Your task to perform on an android device: turn on translation in the chrome app Image 0: 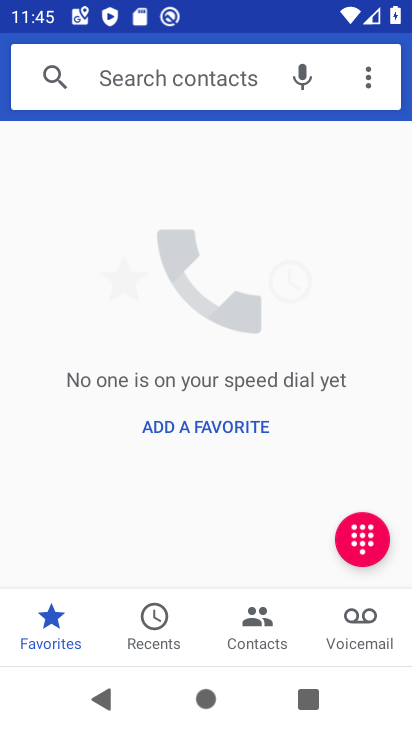
Step 0: press home button
Your task to perform on an android device: turn on translation in the chrome app Image 1: 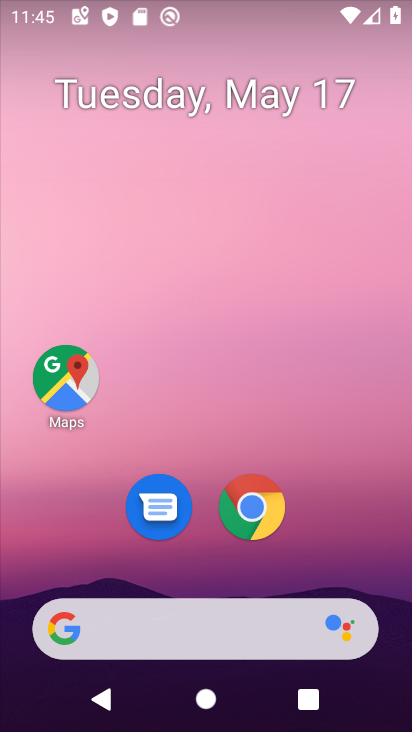
Step 1: drag from (361, 526) to (346, 183)
Your task to perform on an android device: turn on translation in the chrome app Image 2: 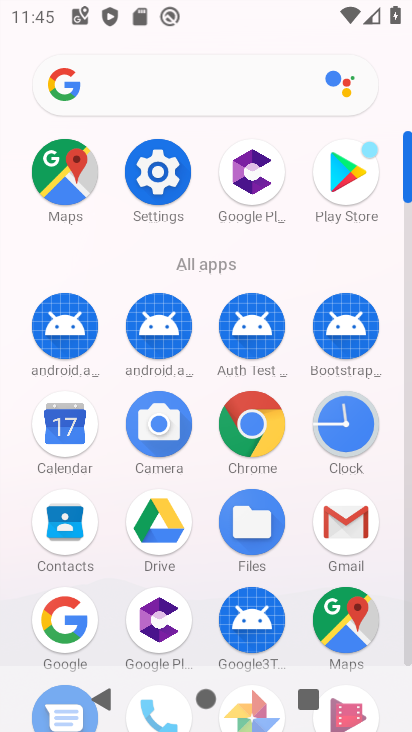
Step 2: click (253, 426)
Your task to perform on an android device: turn on translation in the chrome app Image 3: 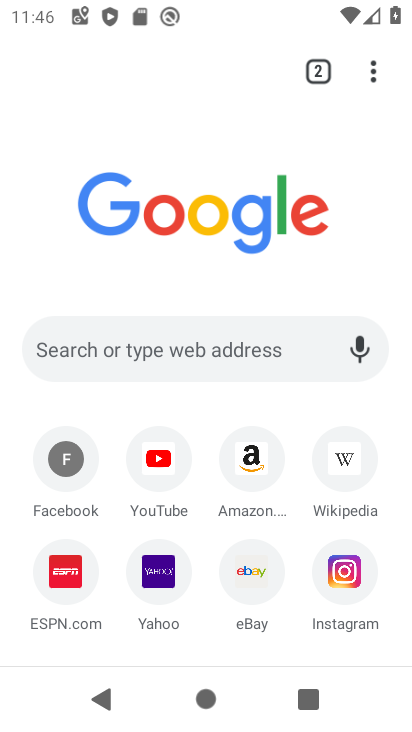
Step 3: click (369, 61)
Your task to perform on an android device: turn on translation in the chrome app Image 4: 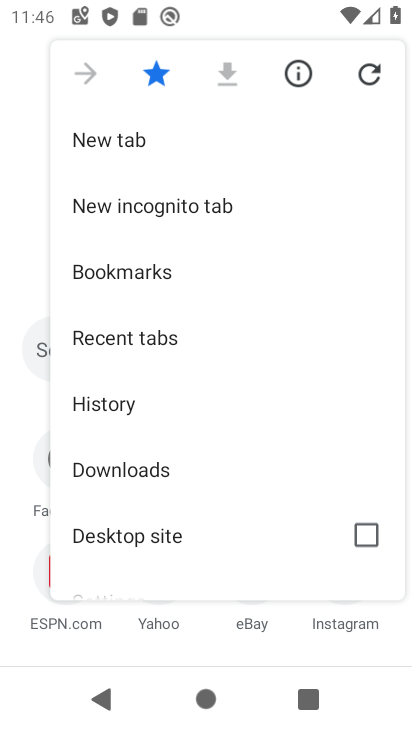
Step 4: drag from (250, 473) to (263, 194)
Your task to perform on an android device: turn on translation in the chrome app Image 5: 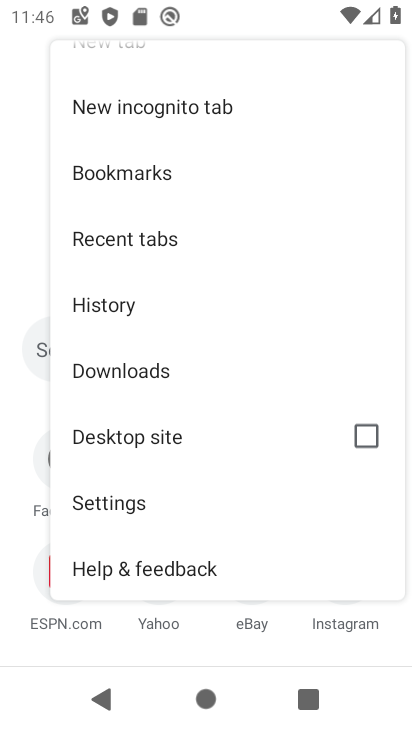
Step 5: click (156, 512)
Your task to perform on an android device: turn on translation in the chrome app Image 6: 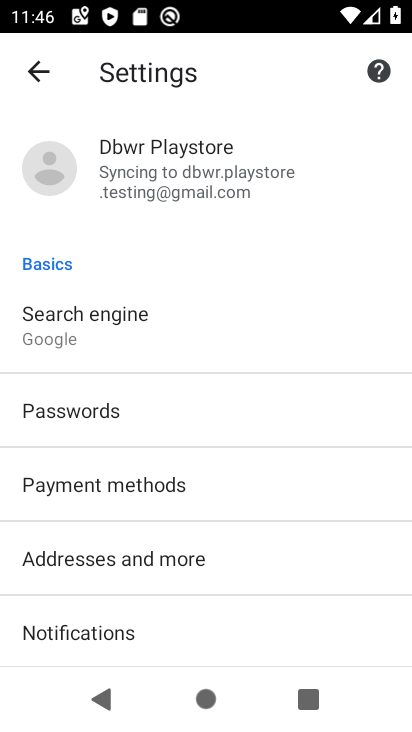
Step 6: drag from (218, 610) to (267, 275)
Your task to perform on an android device: turn on translation in the chrome app Image 7: 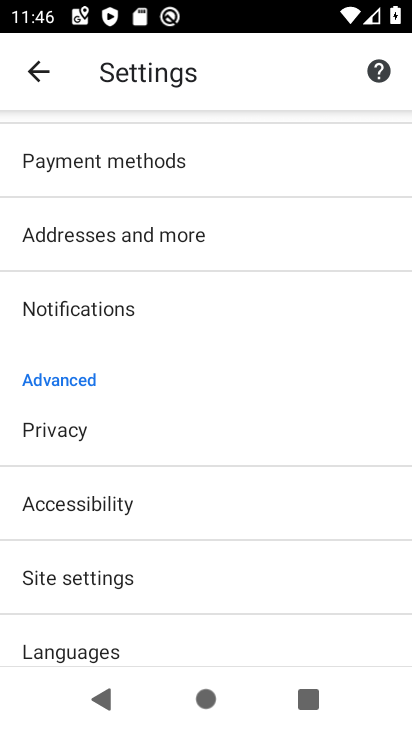
Step 7: drag from (174, 579) to (225, 349)
Your task to perform on an android device: turn on translation in the chrome app Image 8: 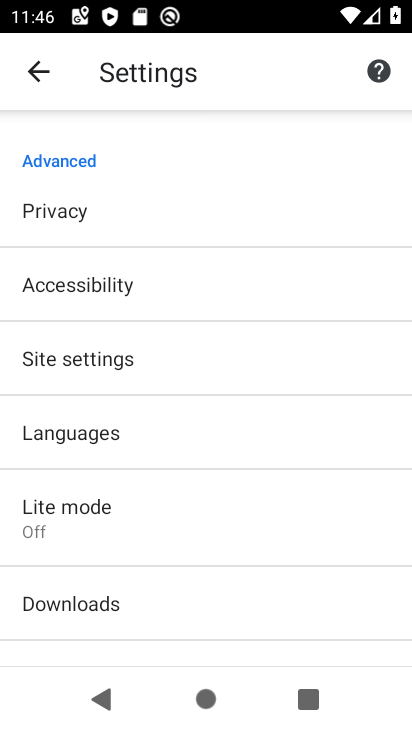
Step 8: click (159, 357)
Your task to perform on an android device: turn on translation in the chrome app Image 9: 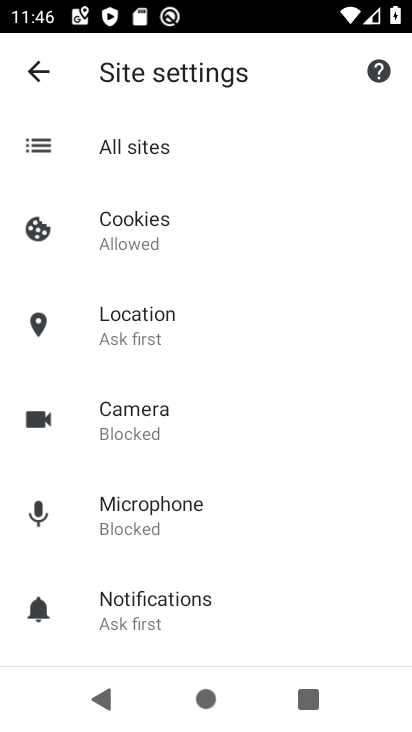
Step 9: press back button
Your task to perform on an android device: turn on translation in the chrome app Image 10: 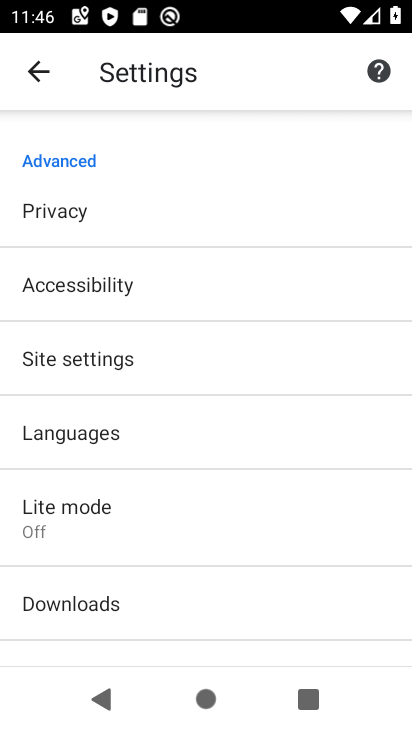
Step 10: click (222, 438)
Your task to perform on an android device: turn on translation in the chrome app Image 11: 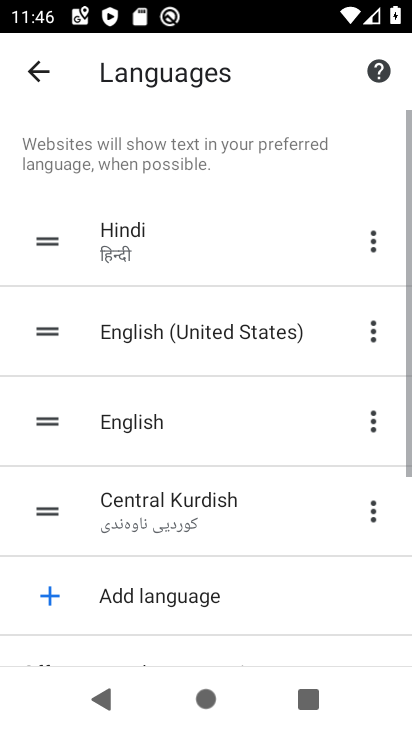
Step 11: drag from (296, 567) to (321, 154)
Your task to perform on an android device: turn on translation in the chrome app Image 12: 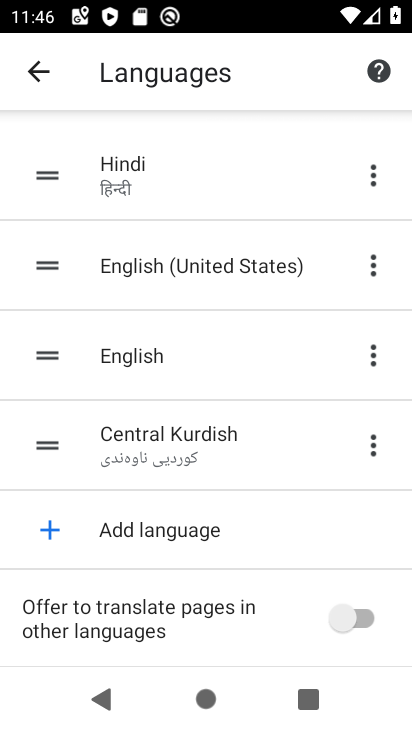
Step 12: click (350, 604)
Your task to perform on an android device: turn on translation in the chrome app Image 13: 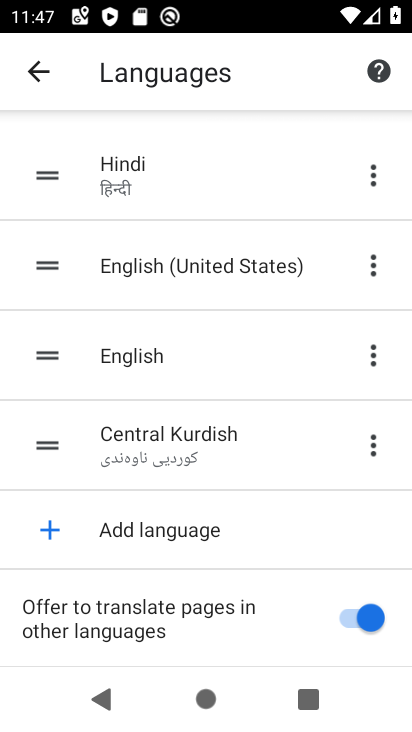
Step 13: task complete